Your task to perform on an android device: change notifications settings Image 0: 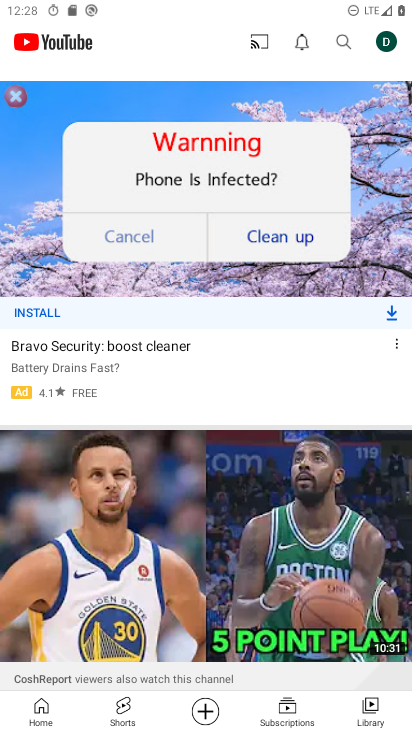
Step 0: press home button
Your task to perform on an android device: change notifications settings Image 1: 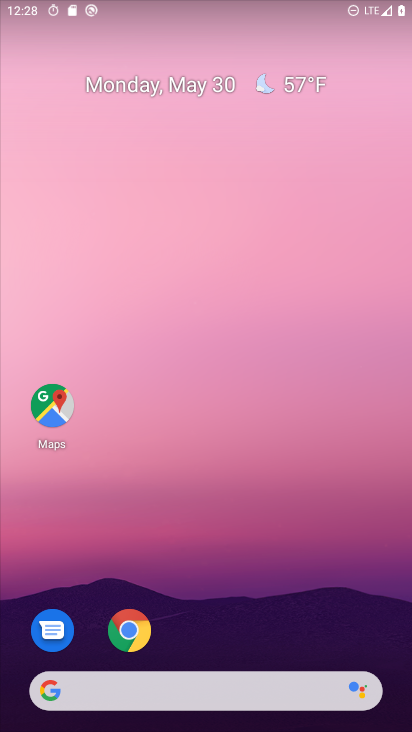
Step 1: drag from (269, 701) to (202, 190)
Your task to perform on an android device: change notifications settings Image 2: 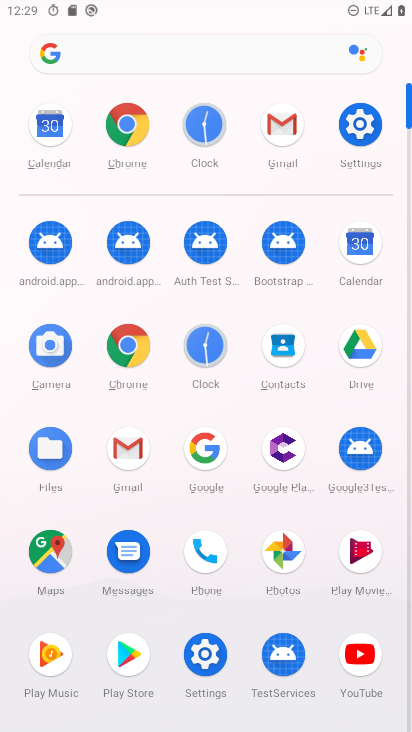
Step 2: click (364, 146)
Your task to perform on an android device: change notifications settings Image 3: 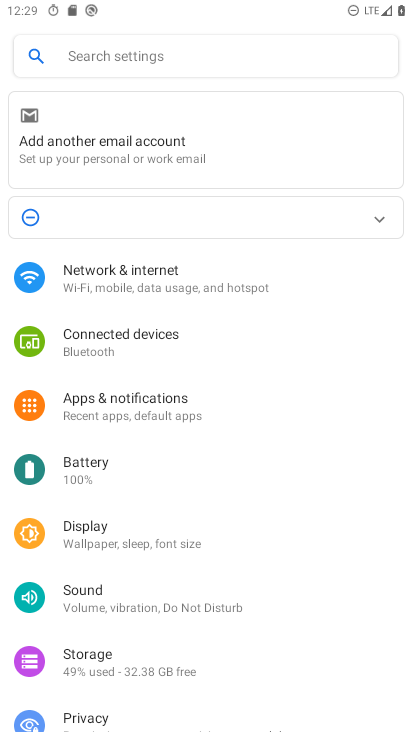
Step 3: click (130, 63)
Your task to perform on an android device: change notifications settings Image 4: 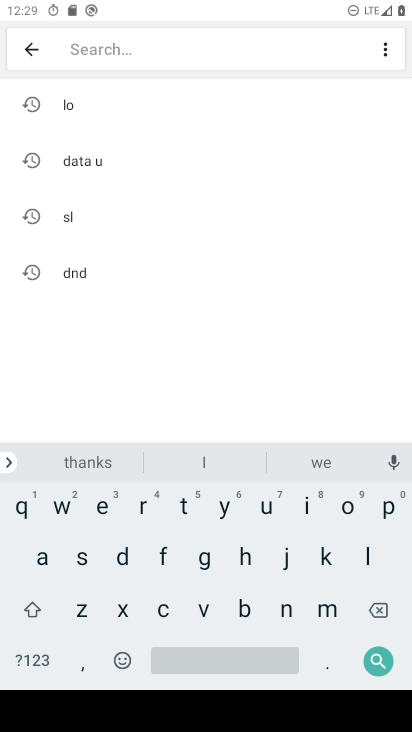
Step 4: click (283, 608)
Your task to perform on an android device: change notifications settings Image 5: 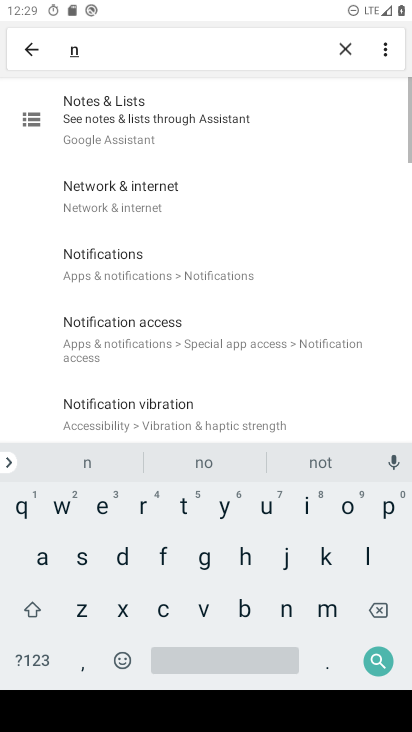
Step 5: click (345, 506)
Your task to perform on an android device: change notifications settings Image 6: 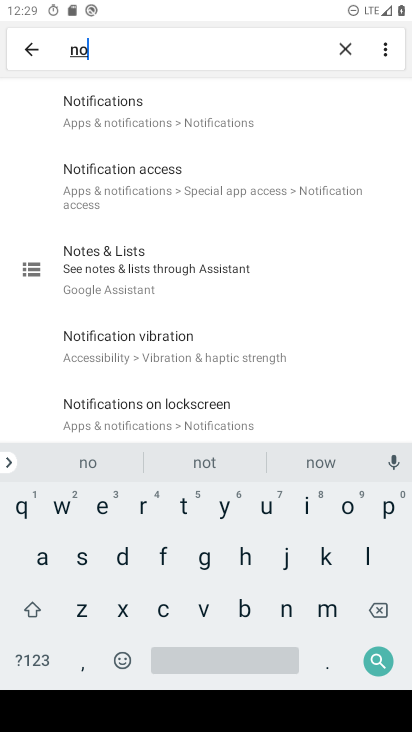
Step 6: click (133, 118)
Your task to perform on an android device: change notifications settings Image 7: 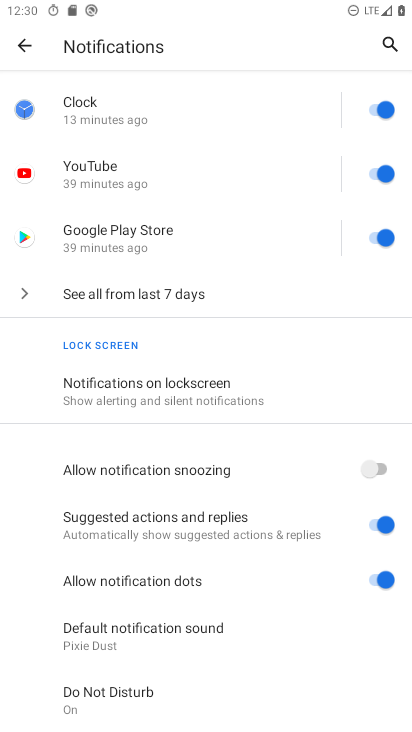
Step 7: click (200, 382)
Your task to perform on an android device: change notifications settings Image 8: 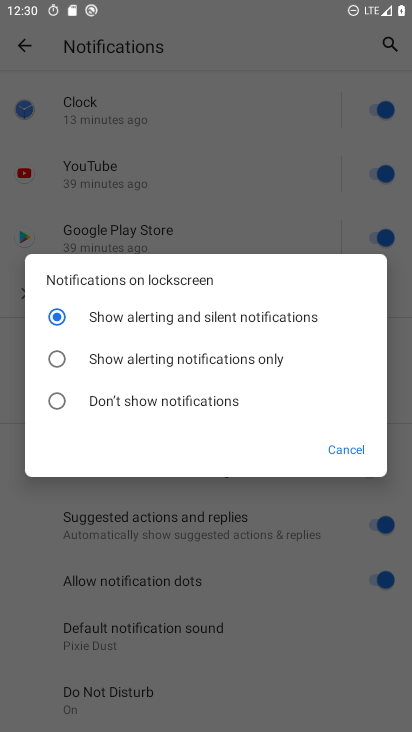
Step 8: task complete